Your task to perform on an android device: Open the web browser Image 0: 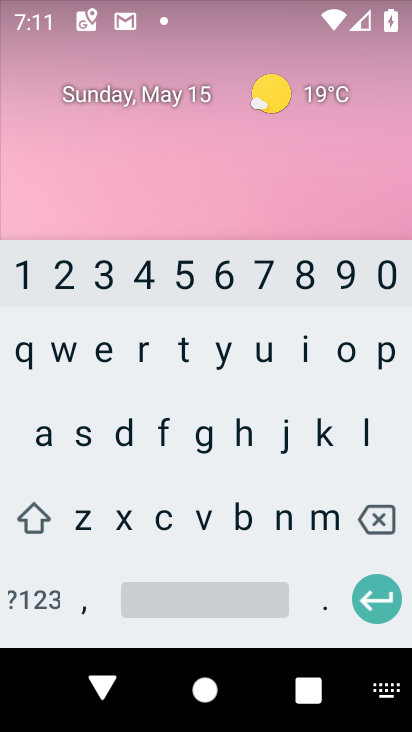
Step 0: press home button
Your task to perform on an android device: Open the web browser Image 1: 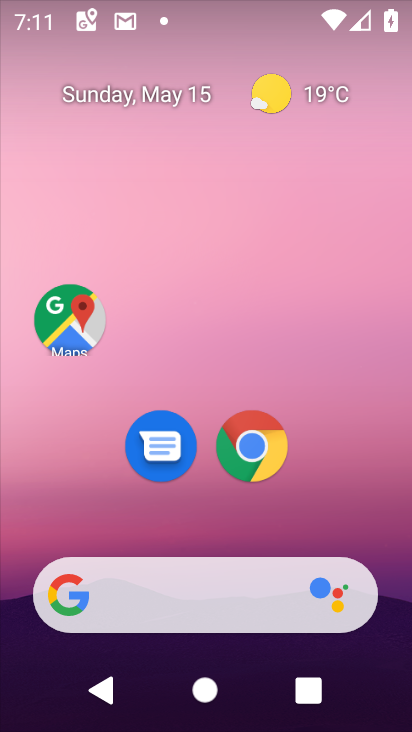
Step 1: drag from (229, 637) to (201, 269)
Your task to perform on an android device: Open the web browser Image 2: 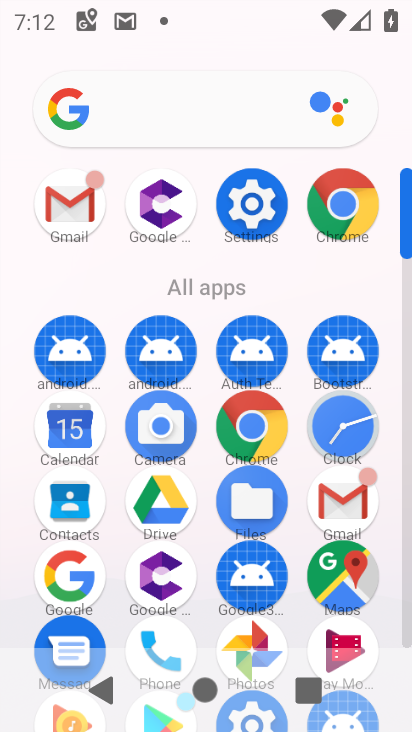
Step 2: click (314, 227)
Your task to perform on an android device: Open the web browser Image 3: 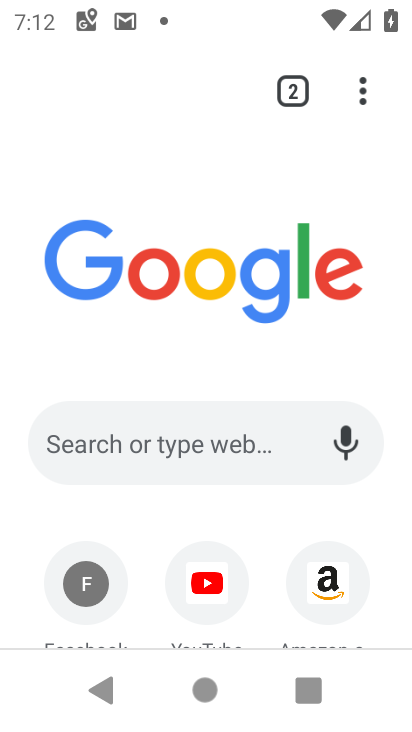
Step 3: click (206, 431)
Your task to perform on an android device: Open the web browser Image 4: 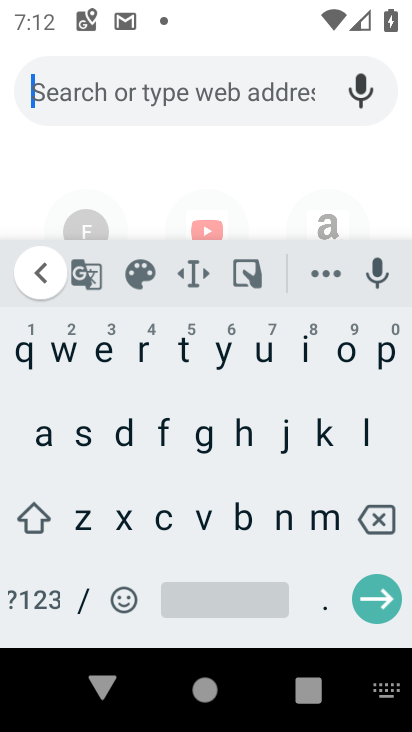
Step 4: task complete